Your task to perform on an android device: Open location settings Image 0: 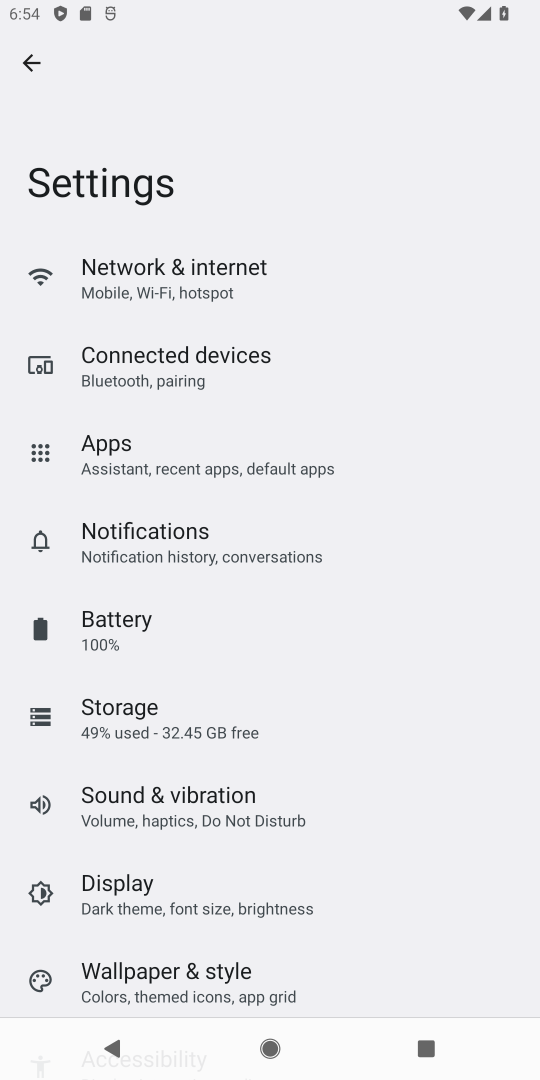
Step 0: drag from (222, 854) to (336, 294)
Your task to perform on an android device: Open location settings Image 1: 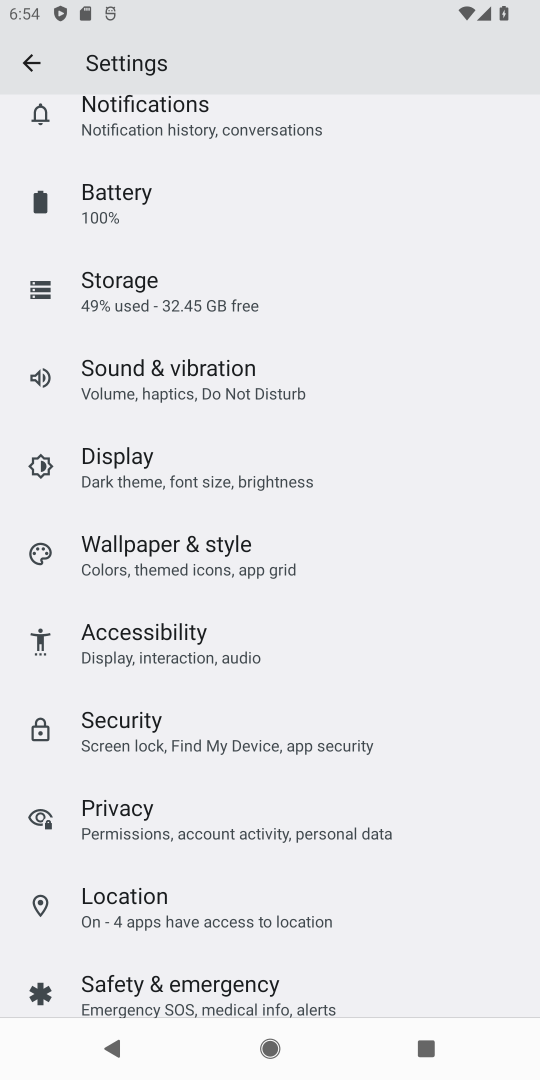
Step 1: click (134, 902)
Your task to perform on an android device: Open location settings Image 2: 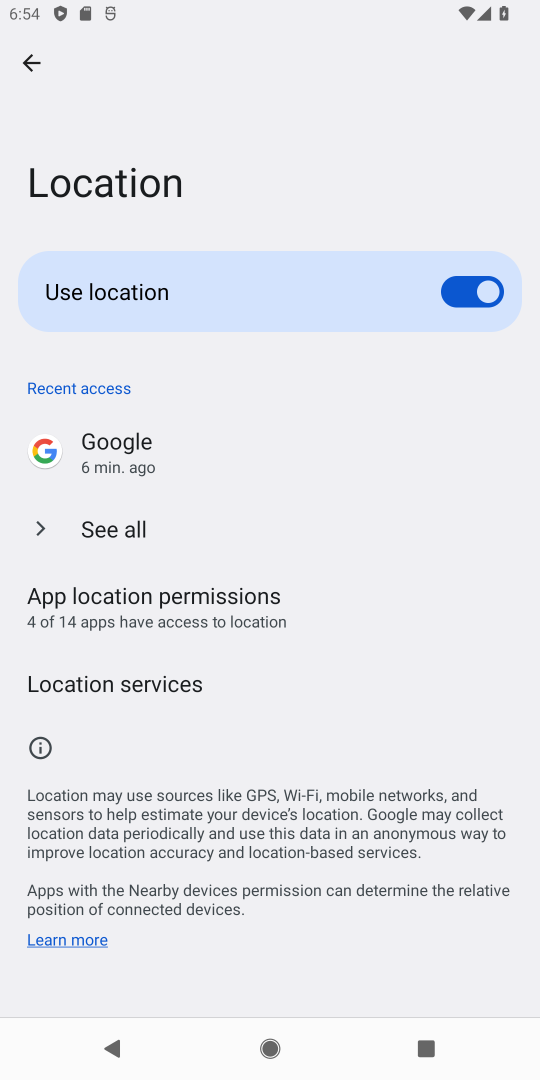
Step 2: task complete